Your task to perform on an android device: toggle sleep mode Image 0: 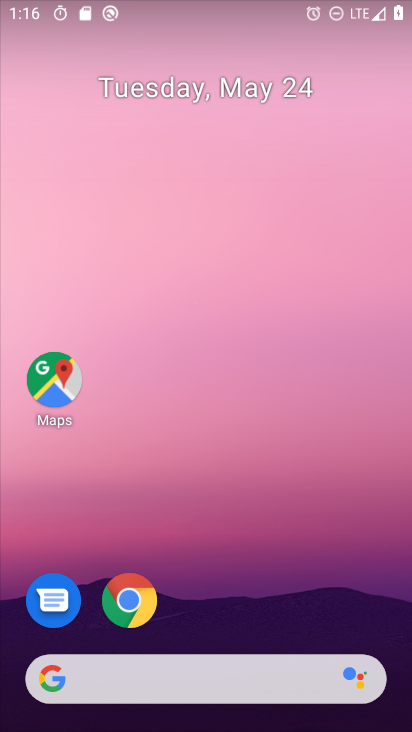
Step 0: drag from (312, 610) to (243, 155)
Your task to perform on an android device: toggle sleep mode Image 1: 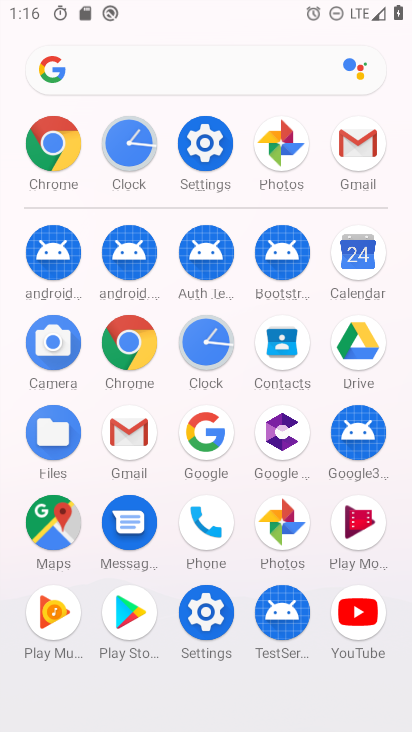
Step 1: click (213, 148)
Your task to perform on an android device: toggle sleep mode Image 2: 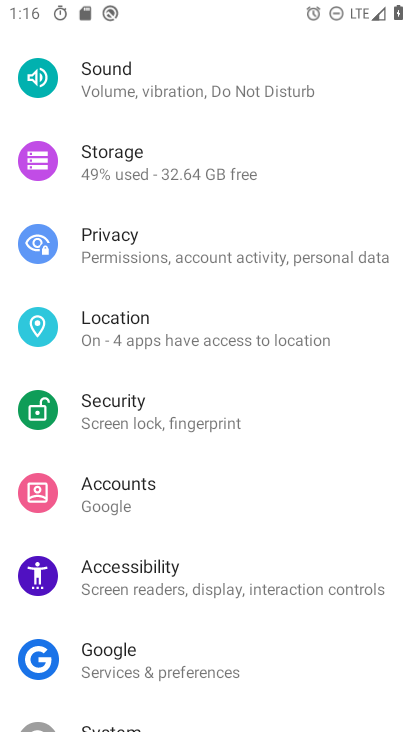
Step 2: drag from (176, 112) to (191, 486)
Your task to perform on an android device: toggle sleep mode Image 3: 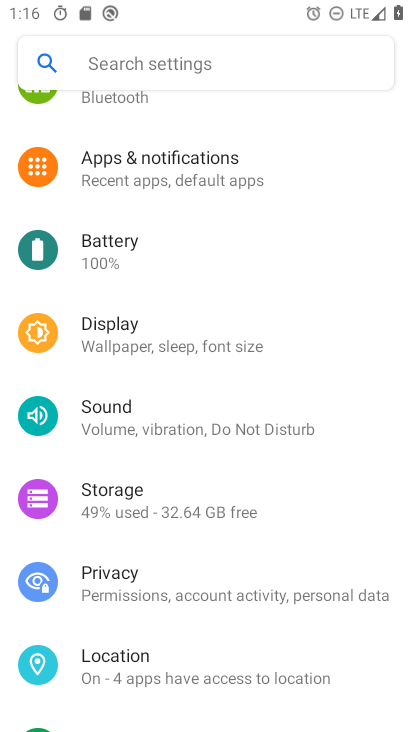
Step 3: click (156, 327)
Your task to perform on an android device: toggle sleep mode Image 4: 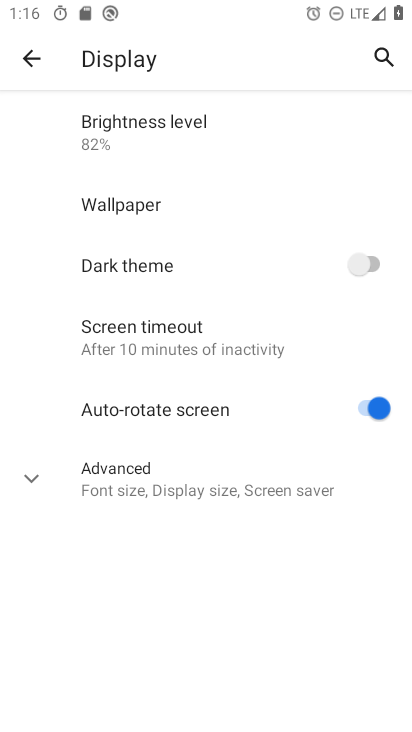
Step 4: click (165, 333)
Your task to perform on an android device: toggle sleep mode Image 5: 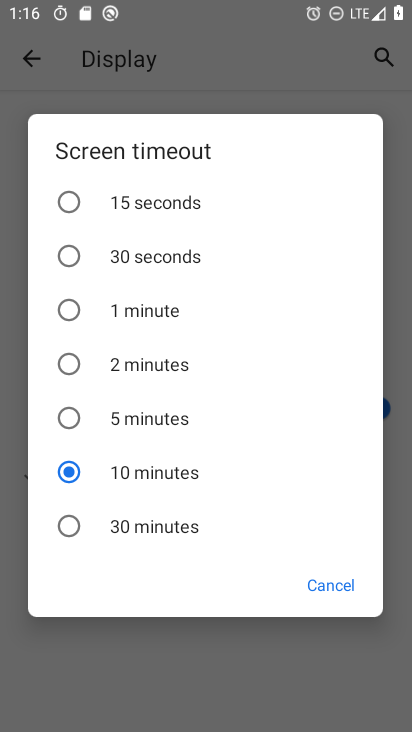
Step 5: click (139, 527)
Your task to perform on an android device: toggle sleep mode Image 6: 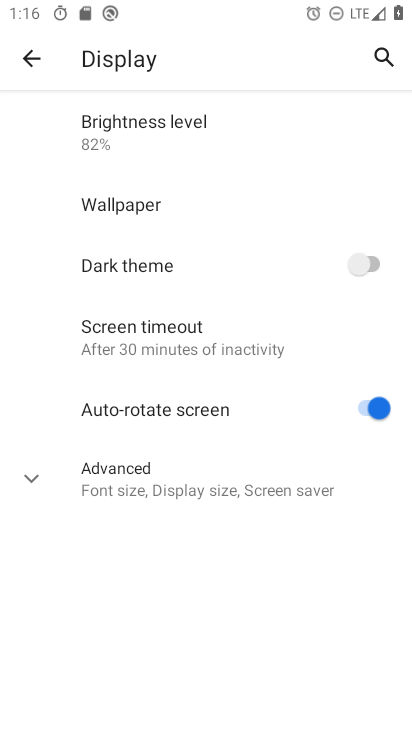
Step 6: task complete